Your task to perform on an android device: turn notification dots on Image 0: 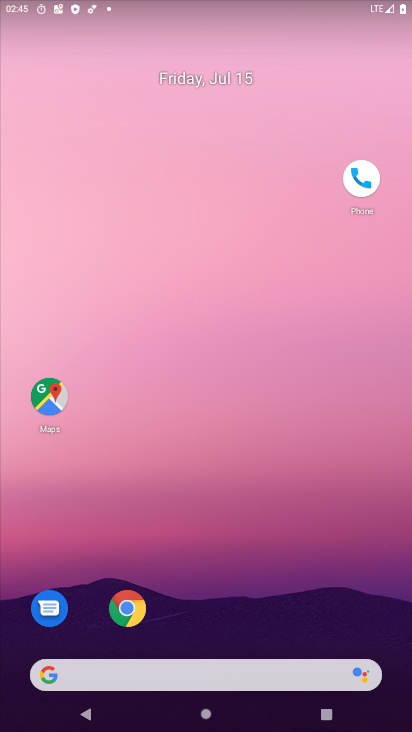
Step 0: drag from (193, 649) to (274, 117)
Your task to perform on an android device: turn notification dots on Image 1: 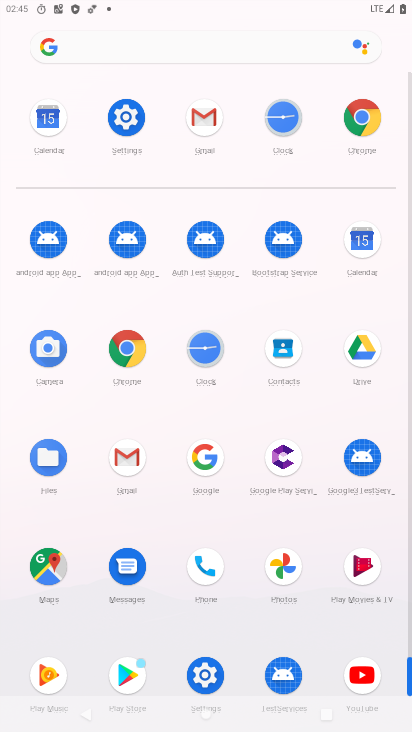
Step 1: click (135, 113)
Your task to perform on an android device: turn notification dots on Image 2: 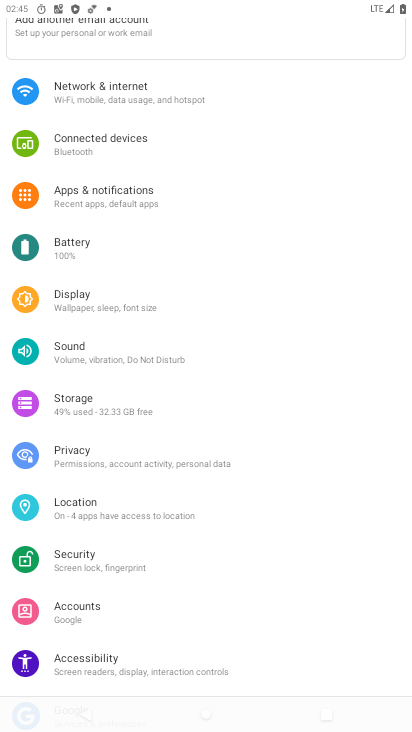
Step 2: drag from (191, 608) to (234, 199)
Your task to perform on an android device: turn notification dots on Image 3: 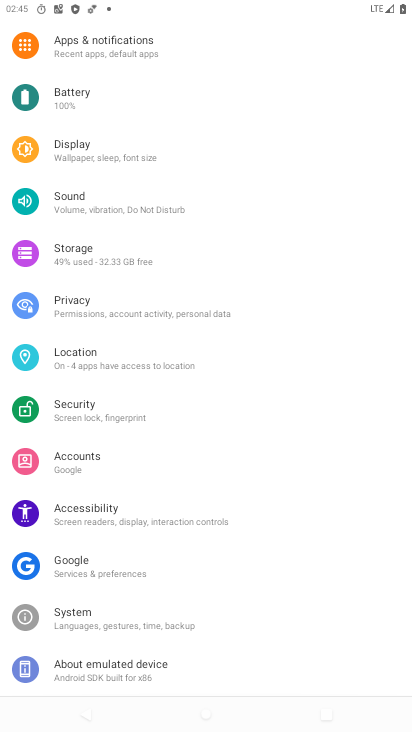
Step 3: drag from (204, 190) to (283, 722)
Your task to perform on an android device: turn notification dots on Image 4: 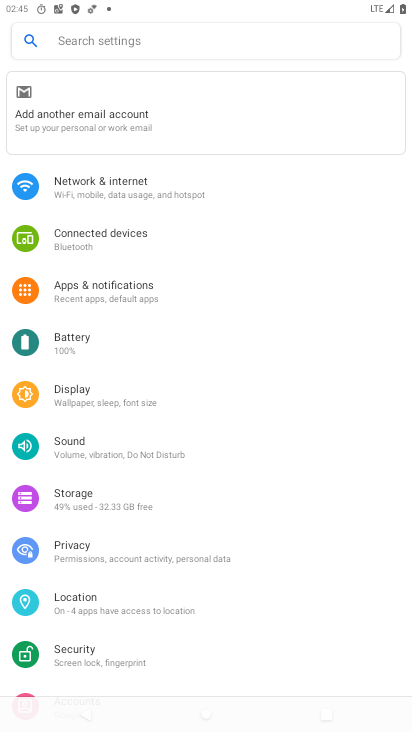
Step 4: click (113, 297)
Your task to perform on an android device: turn notification dots on Image 5: 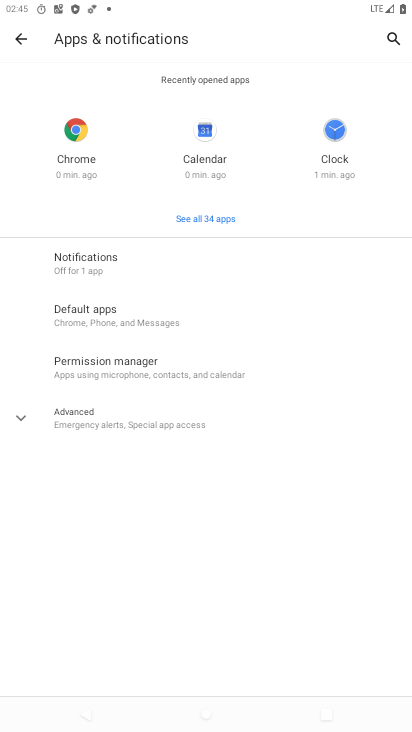
Step 5: click (148, 267)
Your task to perform on an android device: turn notification dots on Image 6: 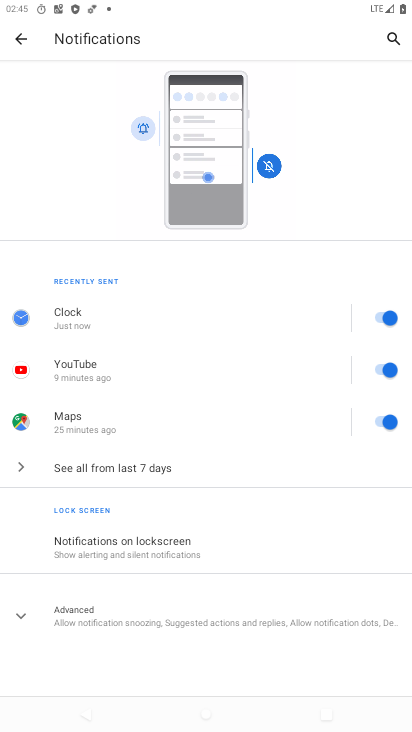
Step 6: drag from (217, 592) to (246, 366)
Your task to perform on an android device: turn notification dots on Image 7: 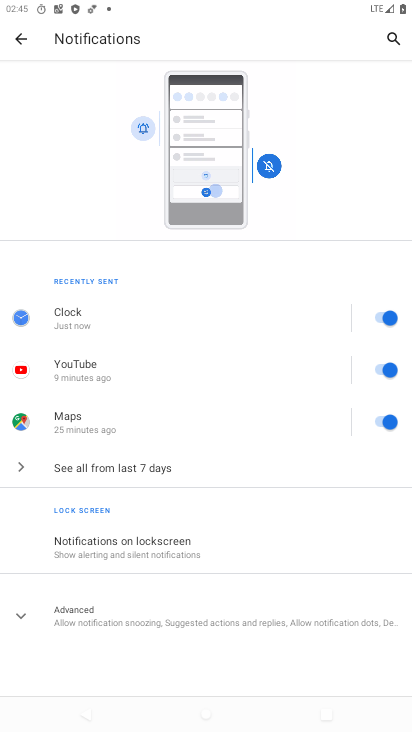
Step 7: click (151, 618)
Your task to perform on an android device: turn notification dots on Image 8: 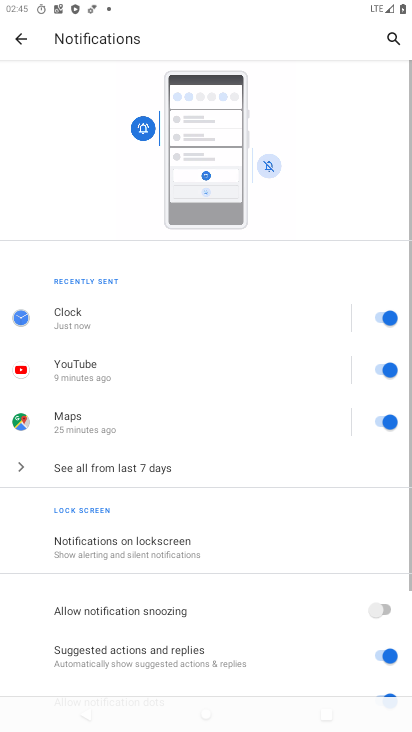
Step 8: task complete